Your task to perform on an android device: Open Google Maps and go to "Timeline" Image 0: 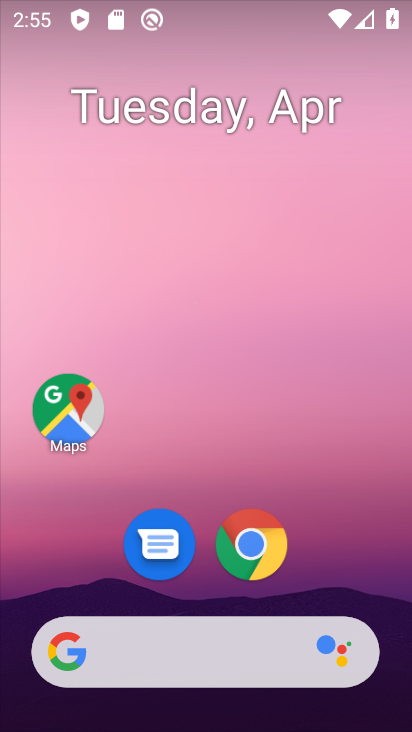
Step 0: drag from (317, 556) to (383, 161)
Your task to perform on an android device: Open Google Maps and go to "Timeline" Image 1: 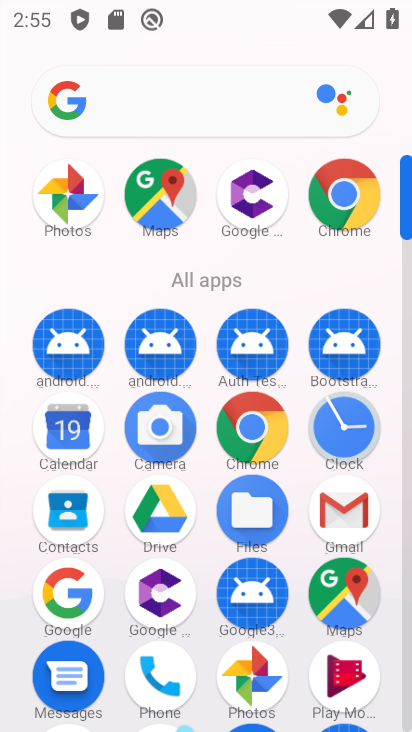
Step 1: click (169, 195)
Your task to perform on an android device: Open Google Maps and go to "Timeline" Image 2: 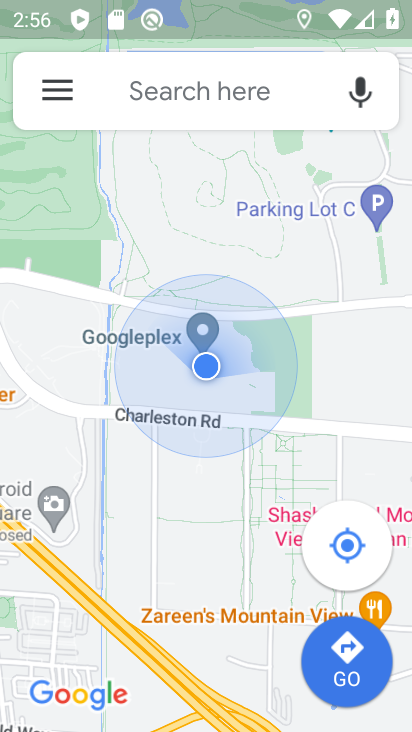
Step 2: click (71, 95)
Your task to perform on an android device: Open Google Maps and go to "Timeline" Image 3: 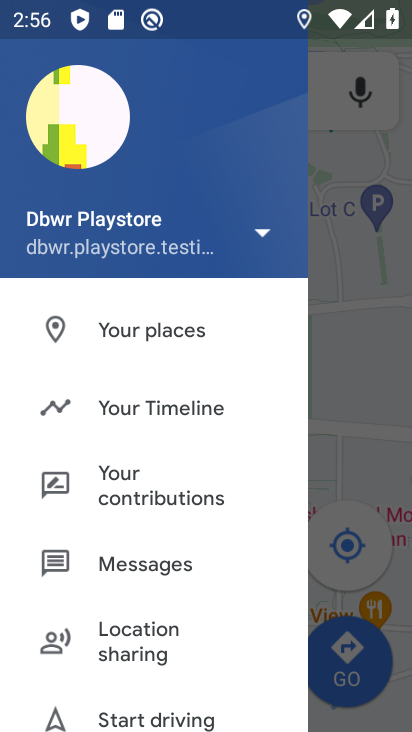
Step 3: click (145, 402)
Your task to perform on an android device: Open Google Maps and go to "Timeline" Image 4: 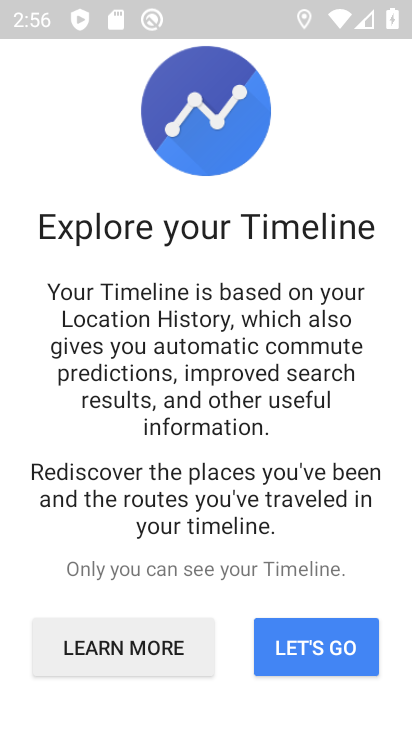
Step 4: click (87, 655)
Your task to perform on an android device: Open Google Maps and go to "Timeline" Image 5: 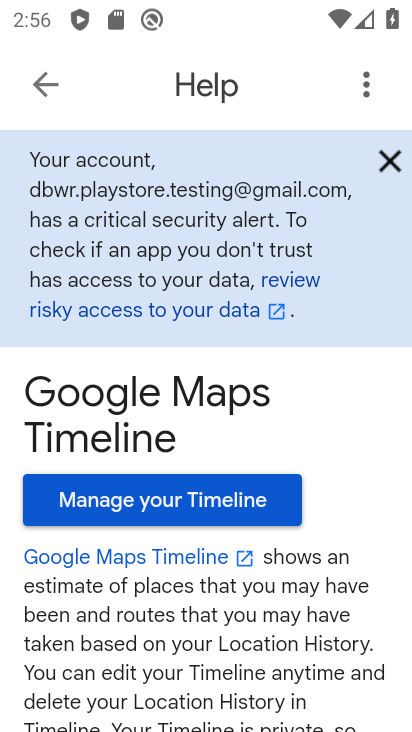
Step 5: click (385, 156)
Your task to perform on an android device: Open Google Maps and go to "Timeline" Image 6: 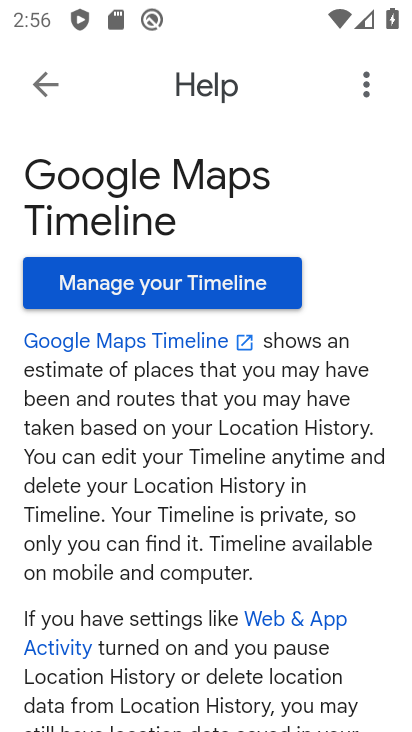
Step 6: task complete